Your task to perform on an android device: Show me productivity apps on the Play Store Image 0: 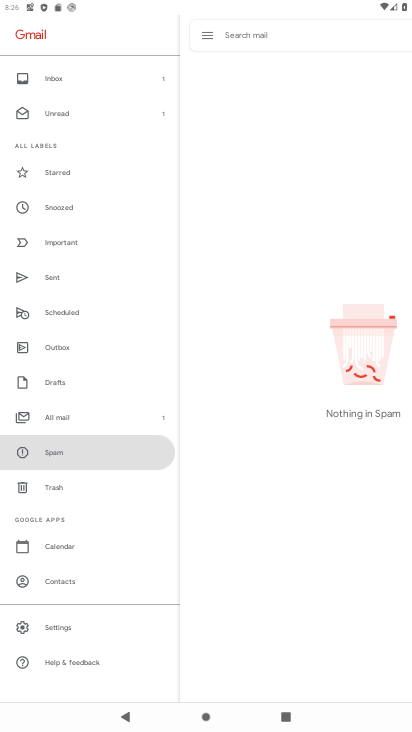
Step 0: press home button
Your task to perform on an android device: Show me productivity apps on the Play Store Image 1: 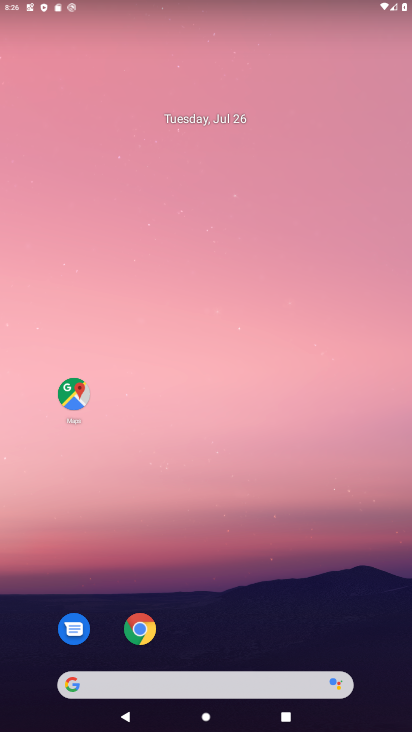
Step 1: drag from (209, 640) to (232, 227)
Your task to perform on an android device: Show me productivity apps on the Play Store Image 2: 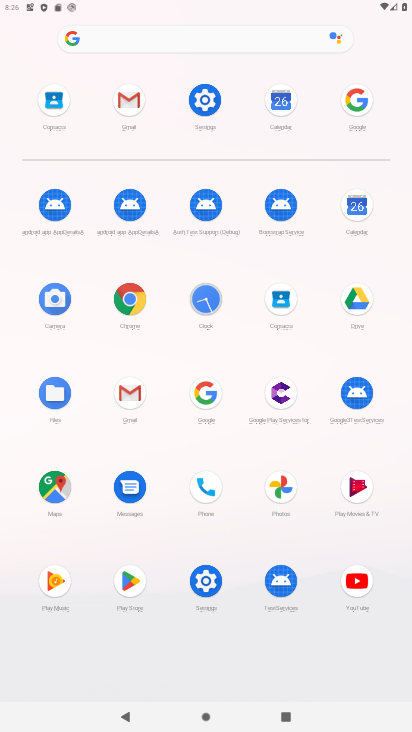
Step 2: click (123, 576)
Your task to perform on an android device: Show me productivity apps on the Play Store Image 3: 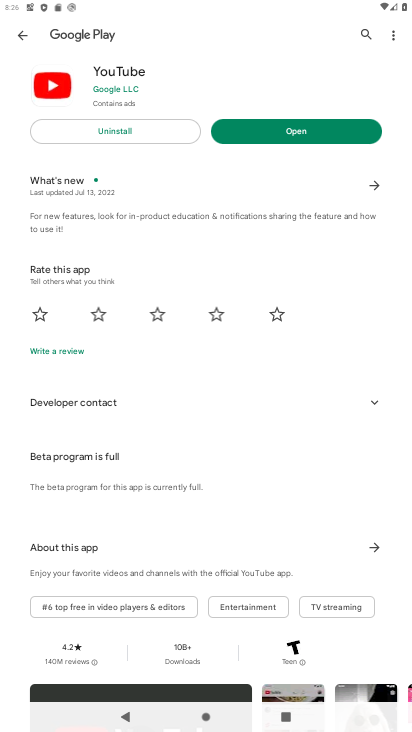
Step 3: click (26, 33)
Your task to perform on an android device: Show me productivity apps on the Play Store Image 4: 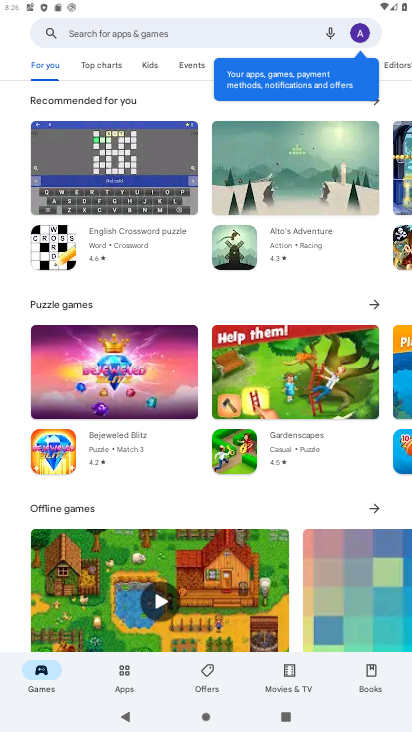
Step 4: click (125, 672)
Your task to perform on an android device: Show me productivity apps on the Play Store Image 5: 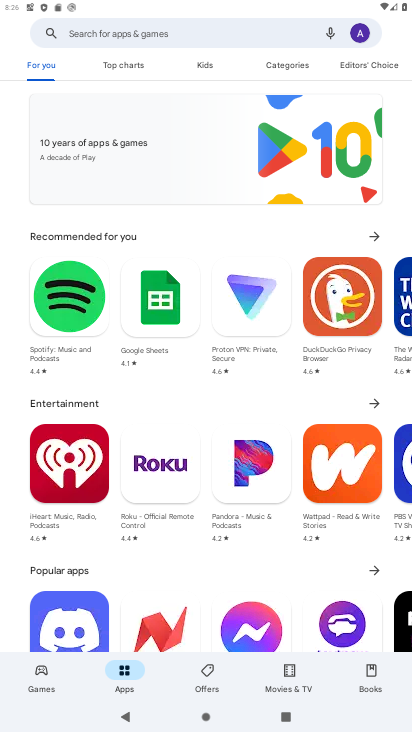
Step 5: click (291, 64)
Your task to perform on an android device: Show me productivity apps on the Play Store Image 6: 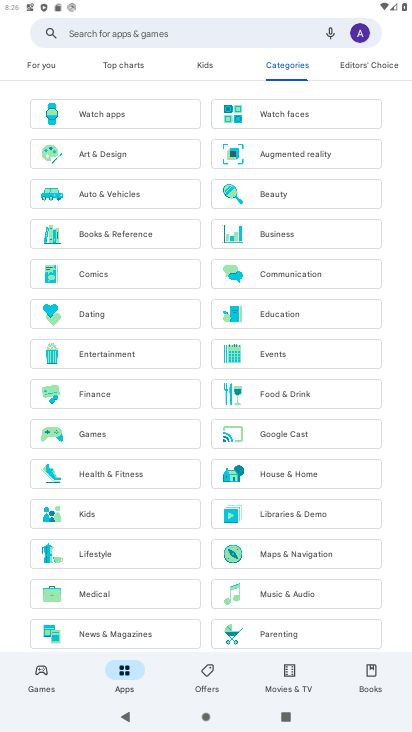
Step 6: drag from (201, 620) to (270, 457)
Your task to perform on an android device: Show me productivity apps on the Play Store Image 7: 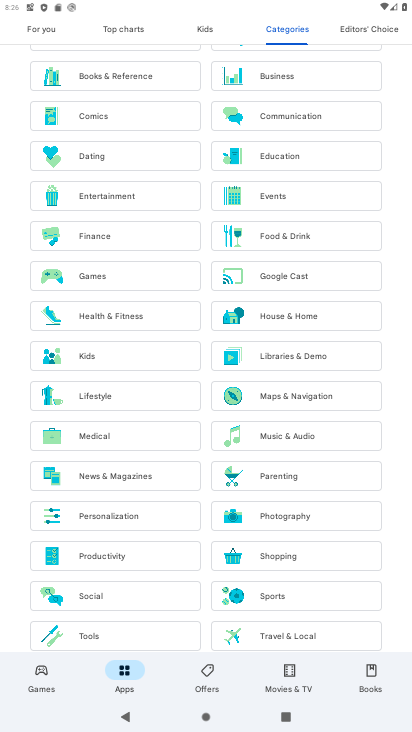
Step 7: click (113, 551)
Your task to perform on an android device: Show me productivity apps on the Play Store Image 8: 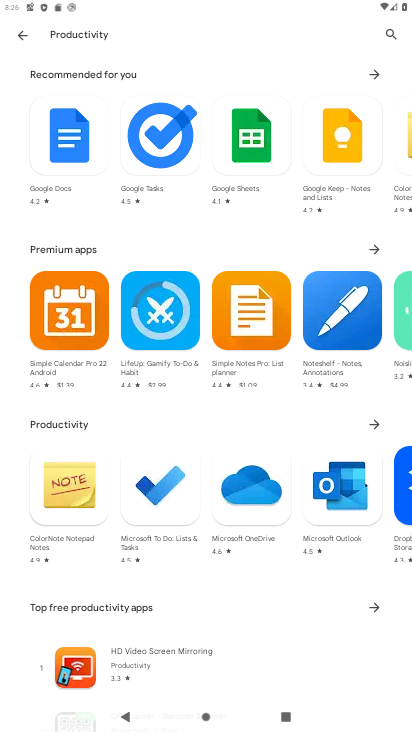
Step 8: task complete